Your task to perform on an android device: Go to internet settings Image 0: 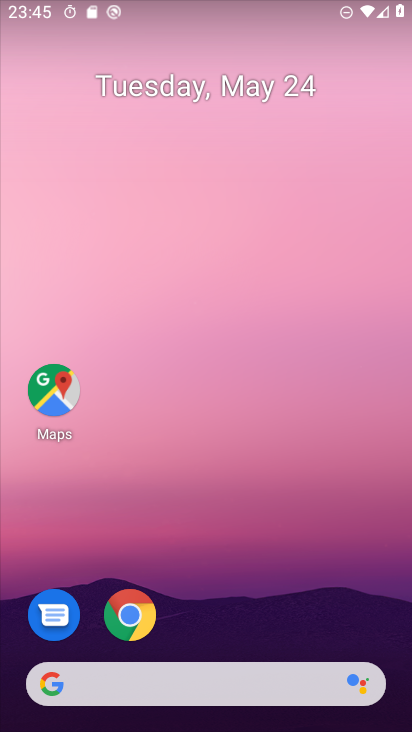
Step 0: drag from (192, 719) to (287, 6)
Your task to perform on an android device: Go to internet settings Image 1: 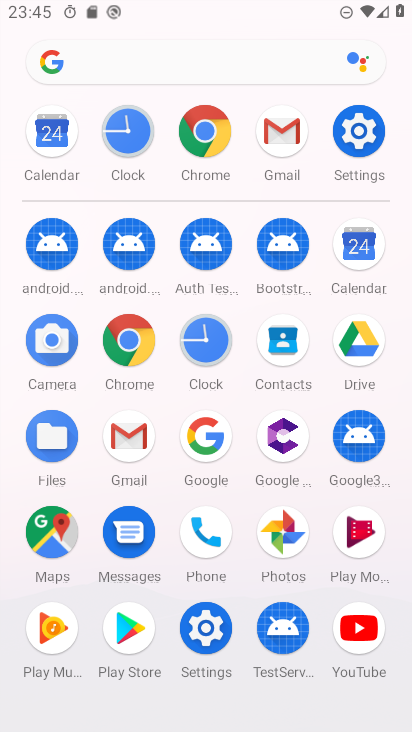
Step 1: click (351, 144)
Your task to perform on an android device: Go to internet settings Image 2: 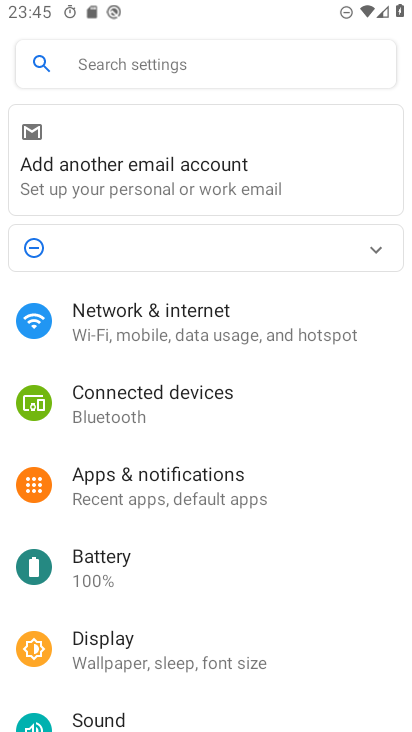
Step 2: click (191, 320)
Your task to perform on an android device: Go to internet settings Image 3: 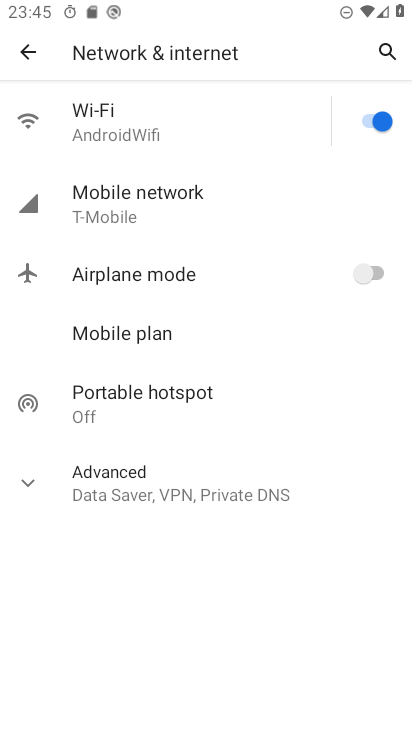
Step 3: task complete